Your task to perform on an android device: manage bookmarks in the chrome app Image 0: 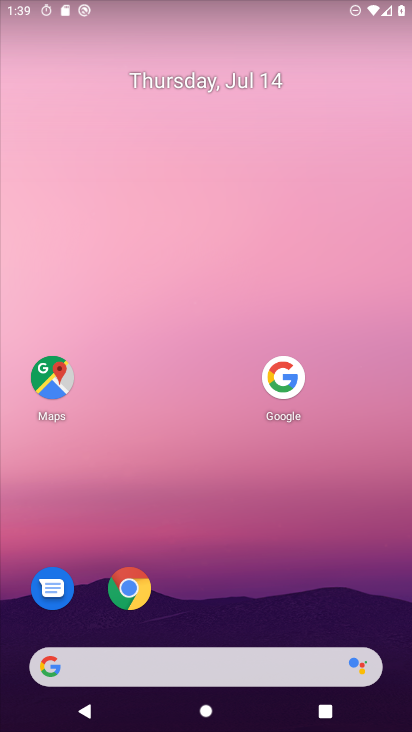
Step 0: click (135, 586)
Your task to perform on an android device: manage bookmarks in the chrome app Image 1: 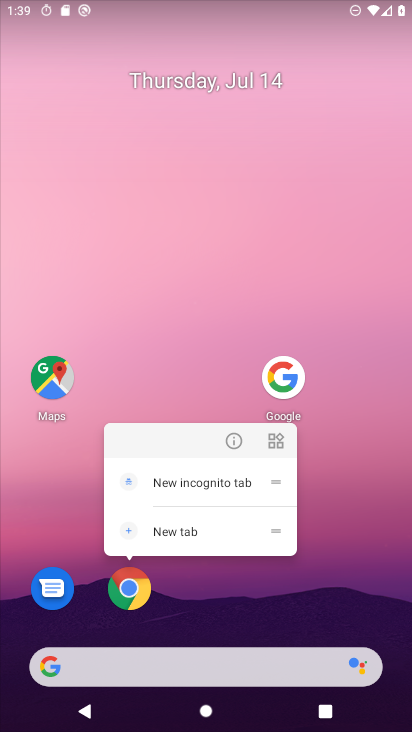
Step 1: click (130, 589)
Your task to perform on an android device: manage bookmarks in the chrome app Image 2: 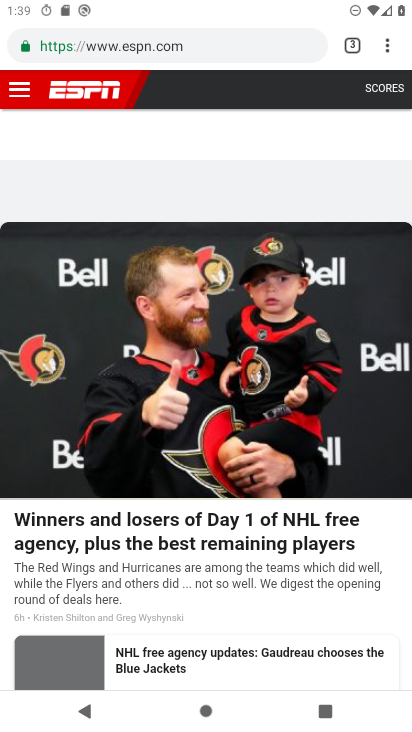
Step 2: drag from (388, 40) to (237, 232)
Your task to perform on an android device: manage bookmarks in the chrome app Image 3: 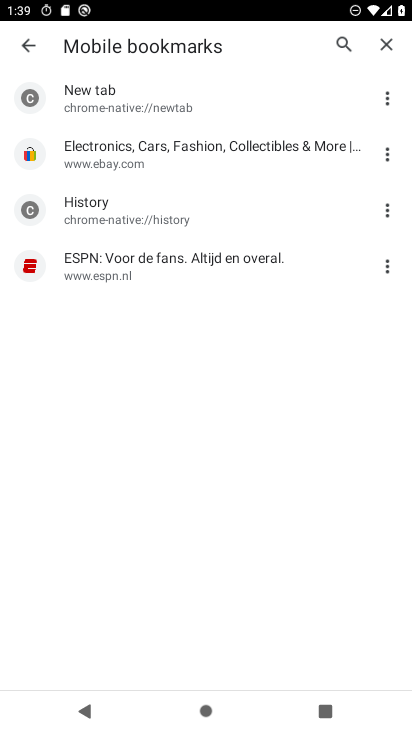
Step 3: click (388, 147)
Your task to perform on an android device: manage bookmarks in the chrome app Image 4: 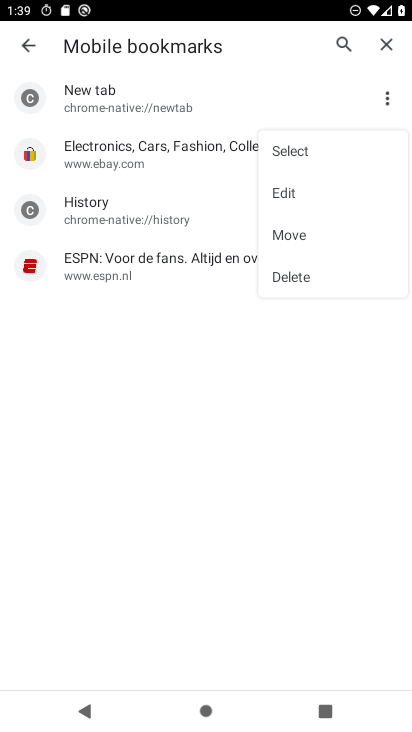
Step 4: click (298, 274)
Your task to perform on an android device: manage bookmarks in the chrome app Image 5: 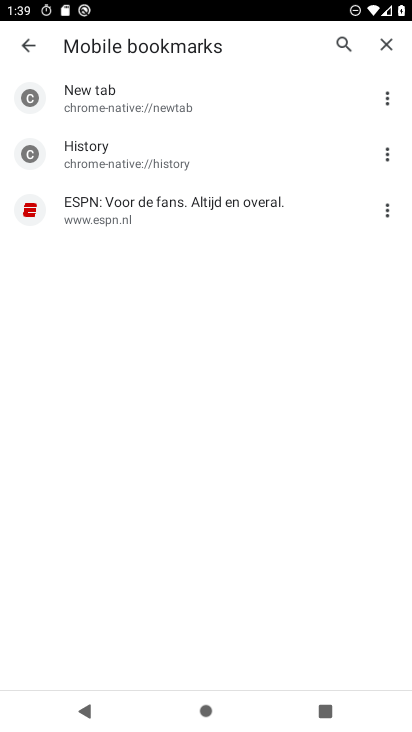
Step 5: task complete